Your task to perform on an android device: Do I have any events tomorrow? Image 0: 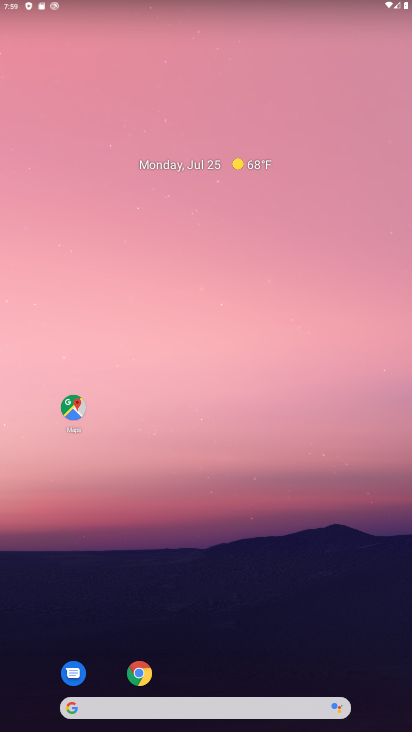
Step 0: click (187, 169)
Your task to perform on an android device: Do I have any events tomorrow? Image 1: 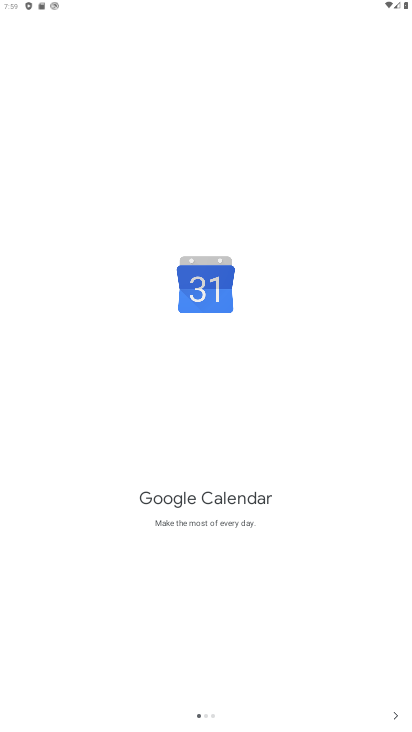
Step 1: click (396, 717)
Your task to perform on an android device: Do I have any events tomorrow? Image 2: 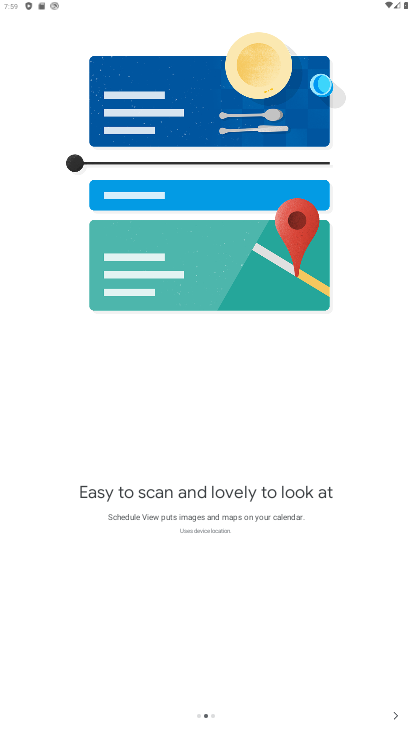
Step 2: click (396, 717)
Your task to perform on an android device: Do I have any events tomorrow? Image 3: 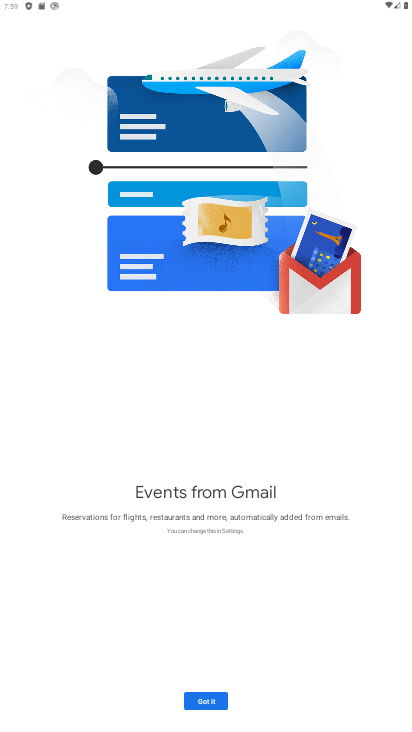
Step 3: click (210, 698)
Your task to perform on an android device: Do I have any events tomorrow? Image 4: 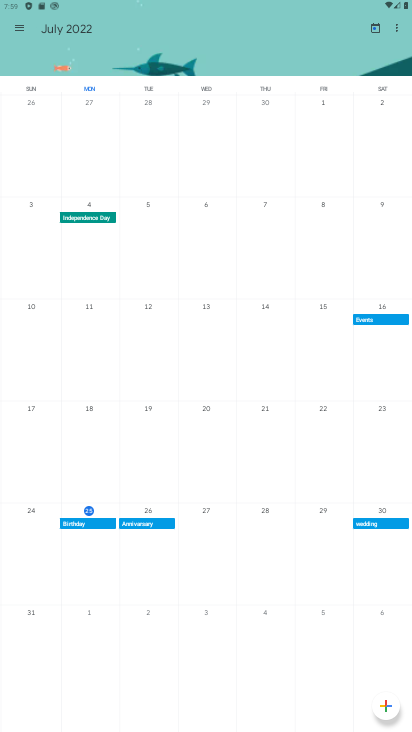
Step 4: click (155, 556)
Your task to perform on an android device: Do I have any events tomorrow? Image 5: 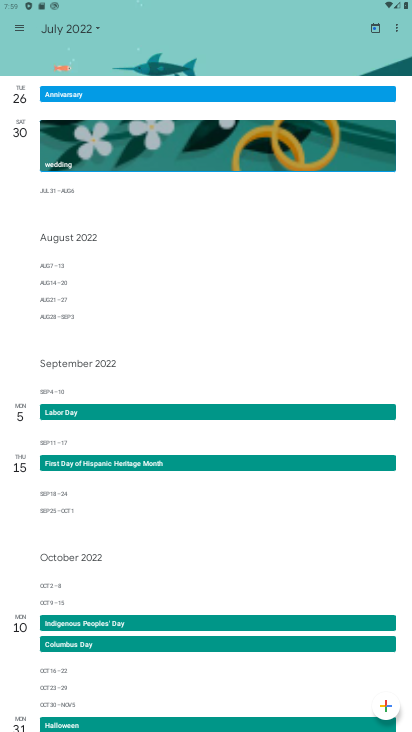
Step 5: task complete